Your task to perform on an android device: turn off airplane mode Image 0: 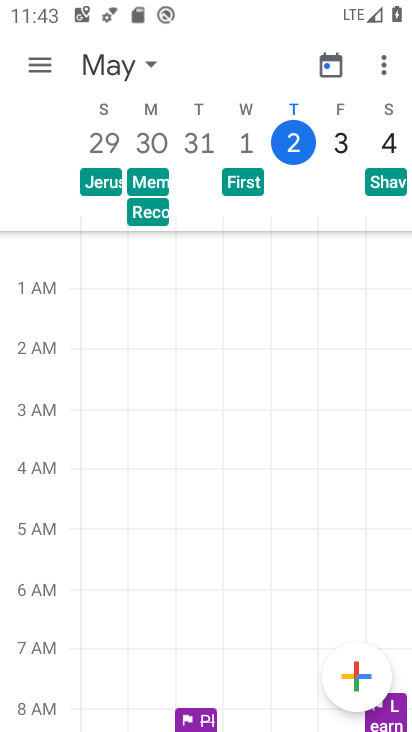
Step 0: press home button
Your task to perform on an android device: turn off airplane mode Image 1: 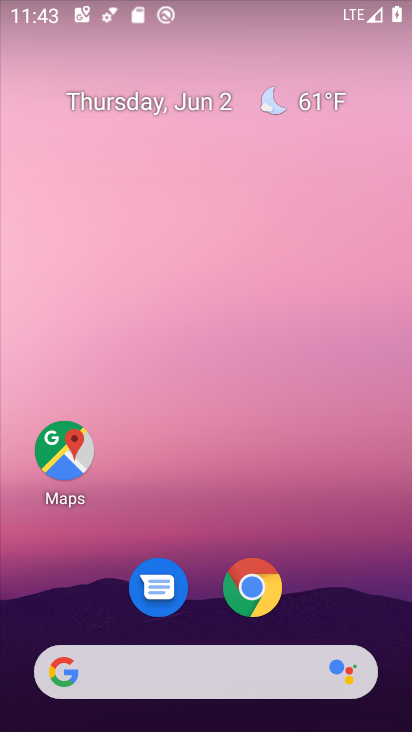
Step 1: drag from (249, 497) to (293, 8)
Your task to perform on an android device: turn off airplane mode Image 2: 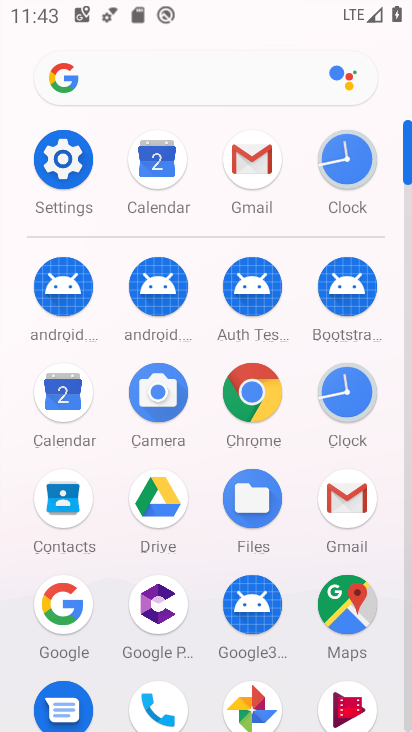
Step 2: click (71, 155)
Your task to perform on an android device: turn off airplane mode Image 3: 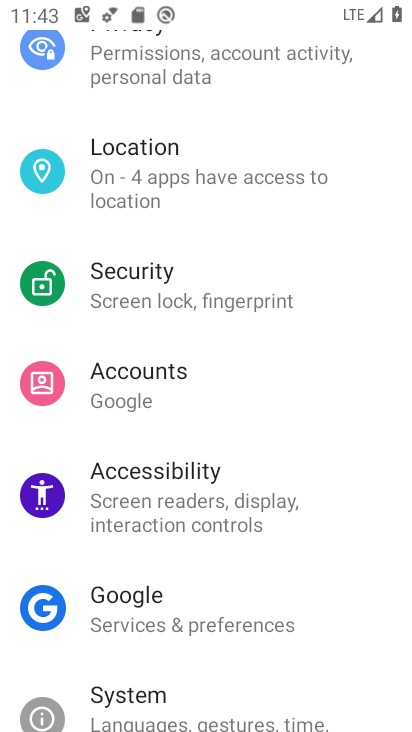
Step 3: drag from (238, 117) to (243, 673)
Your task to perform on an android device: turn off airplane mode Image 4: 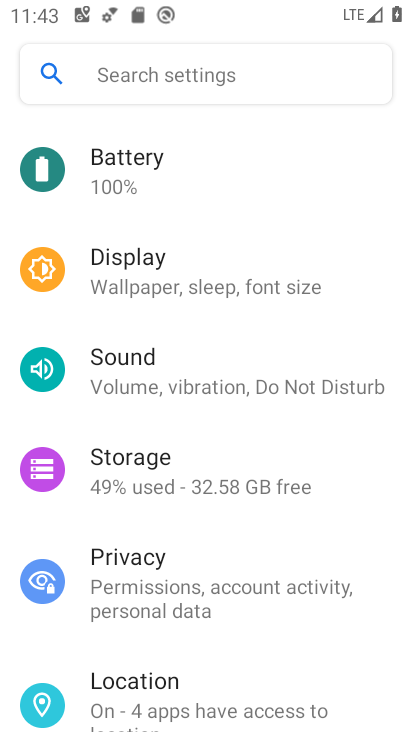
Step 4: drag from (268, 184) to (246, 544)
Your task to perform on an android device: turn off airplane mode Image 5: 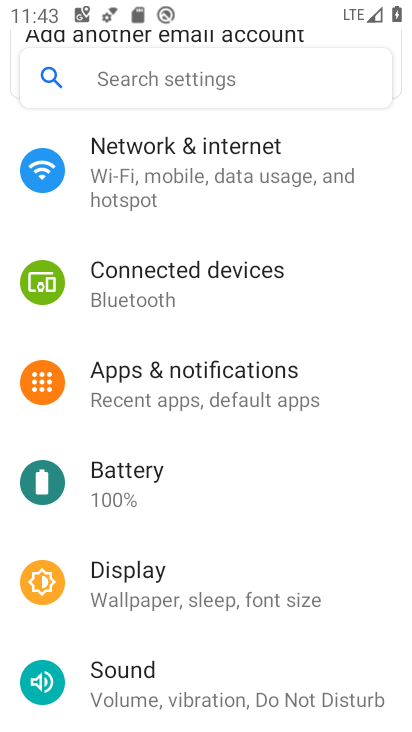
Step 5: click (222, 170)
Your task to perform on an android device: turn off airplane mode Image 6: 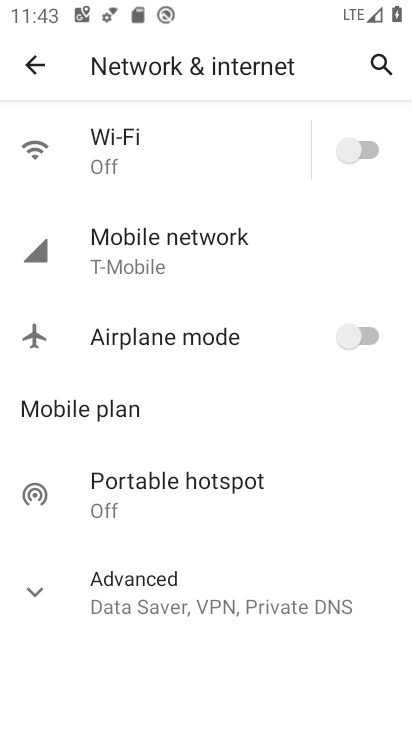
Step 6: task complete